Your task to perform on an android device: Turn on the flashlight Image 0: 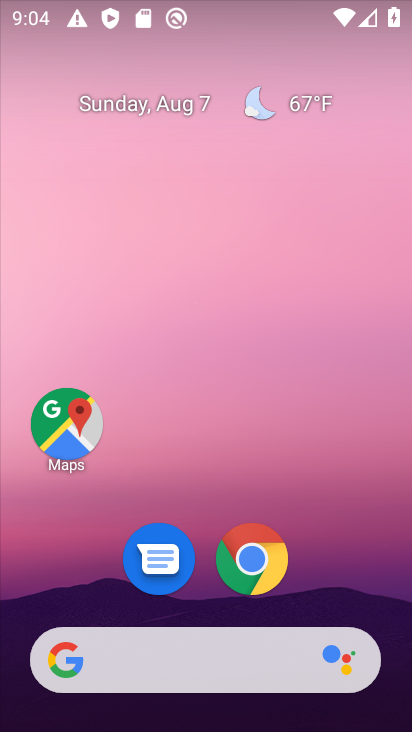
Step 0: drag from (247, 0) to (226, 103)
Your task to perform on an android device: Turn on the flashlight Image 1: 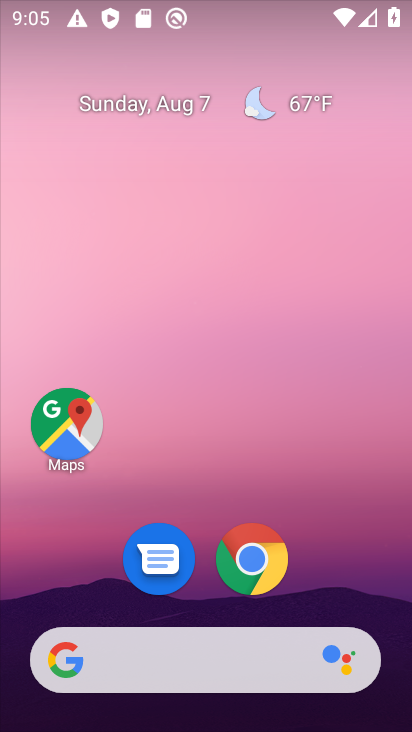
Step 1: task complete